Your task to perform on an android device: What's the weather going to be tomorrow? Image 0: 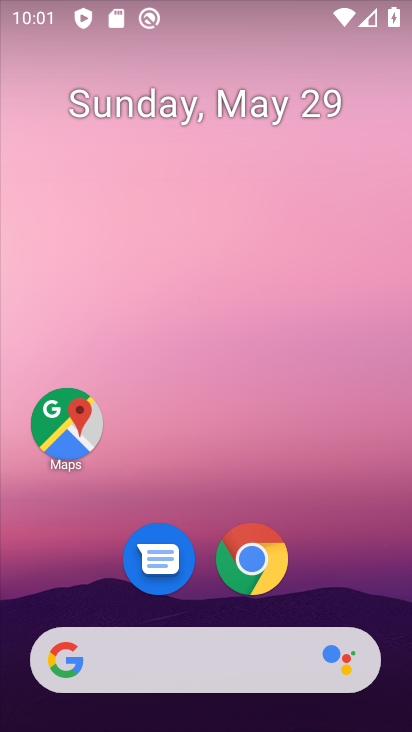
Step 0: drag from (271, 595) to (181, 24)
Your task to perform on an android device: What's the weather going to be tomorrow? Image 1: 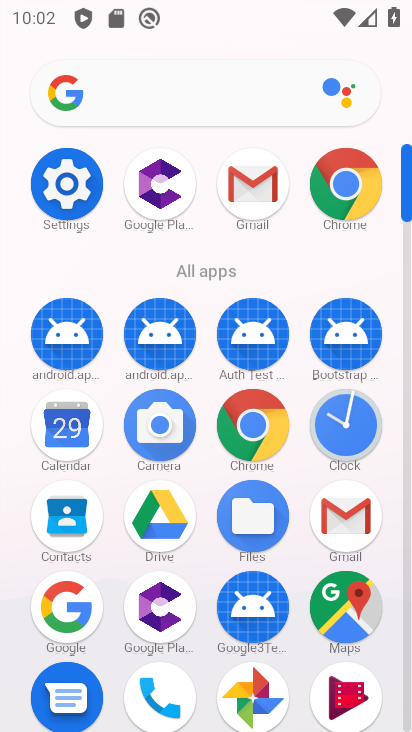
Step 1: click (69, 600)
Your task to perform on an android device: What's the weather going to be tomorrow? Image 2: 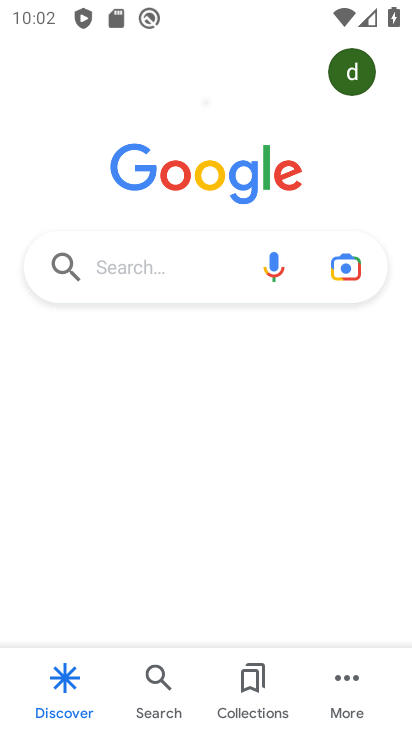
Step 2: click (177, 284)
Your task to perform on an android device: What's the weather going to be tomorrow? Image 3: 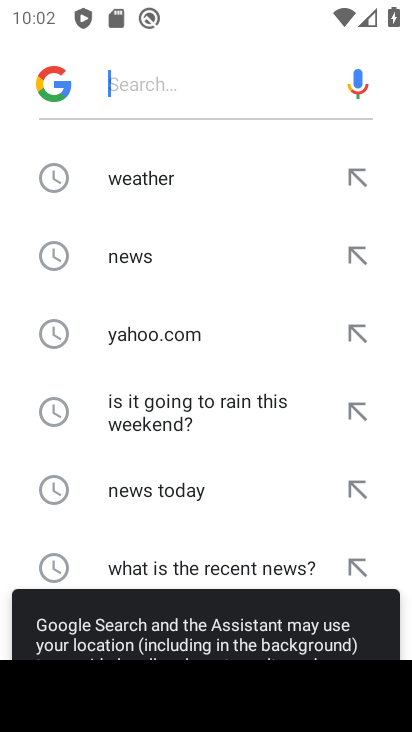
Step 3: click (123, 187)
Your task to perform on an android device: What's the weather going to be tomorrow? Image 4: 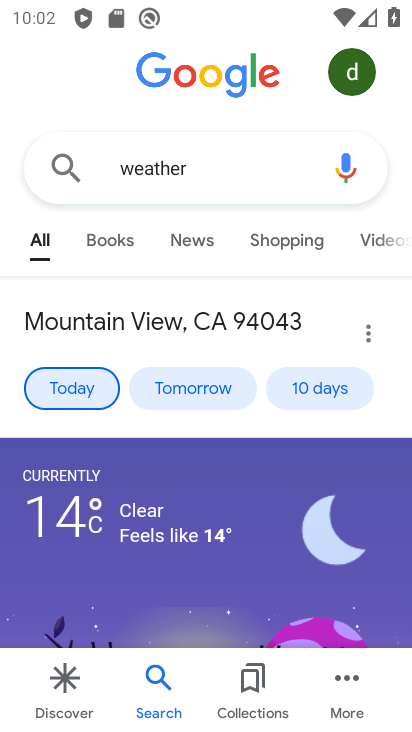
Step 4: click (168, 381)
Your task to perform on an android device: What's the weather going to be tomorrow? Image 5: 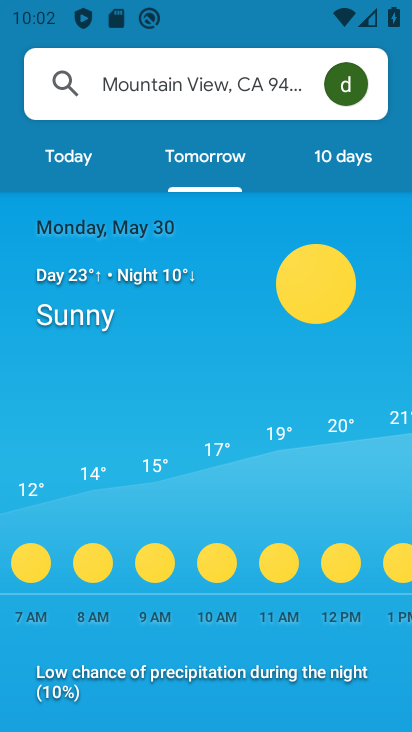
Step 5: task complete